Your task to perform on an android device: turn on location history Image 0: 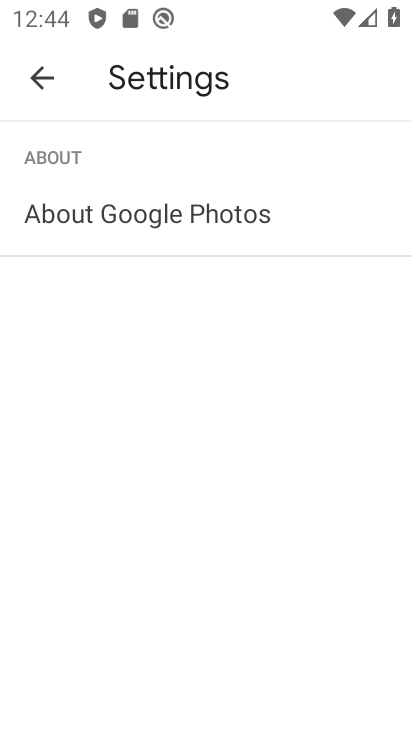
Step 0: press home button
Your task to perform on an android device: turn on location history Image 1: 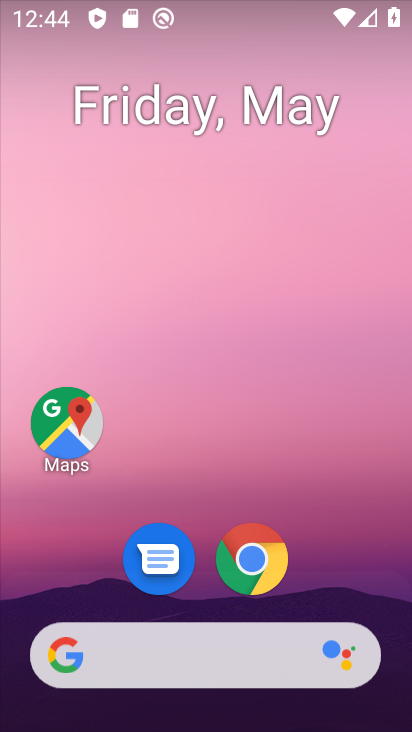
Step 1: drag from (367, 565) to (317, 167)
Your task to perform on an android device: turn on location history Image 2: 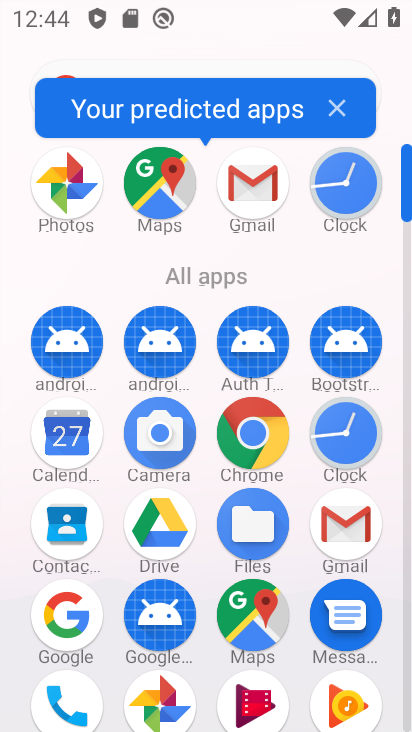
Step 2: drag from (285, 559) to (269, 240)
Your task to perform on an android device: turn on location history Image 3: 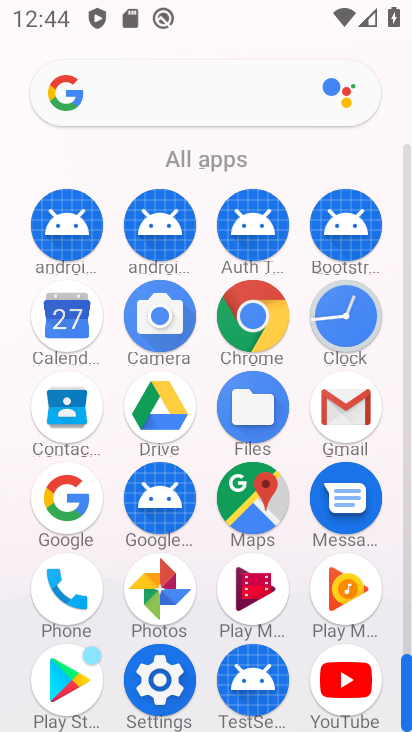
Step 3: click (172, 666)
Your task to perform on an android device: turn on location history Image 4: 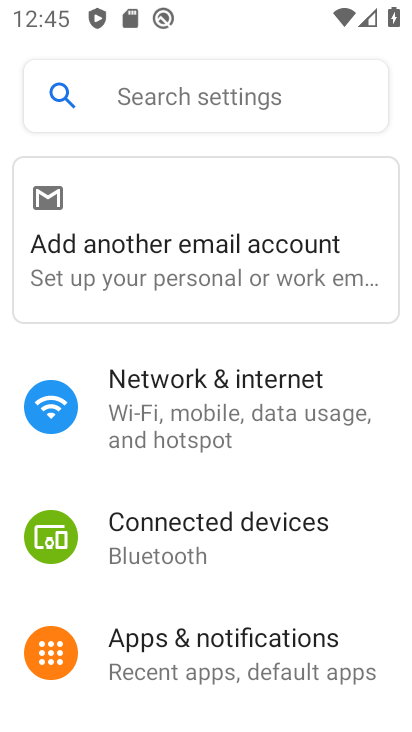
Step 4: drag from (277, 658) to (240, 274)
Your task to perform on an android device: turn on location history Image 5: 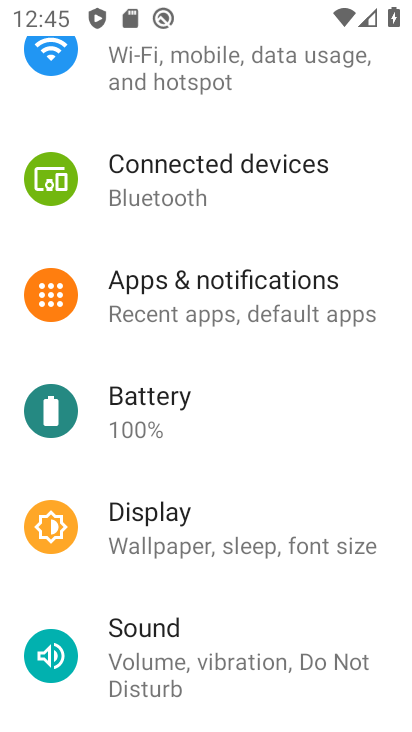
Step 5: drag from (259, 542) to (282, 216)
Your task to perform on an android device: turn on location history Image 6: 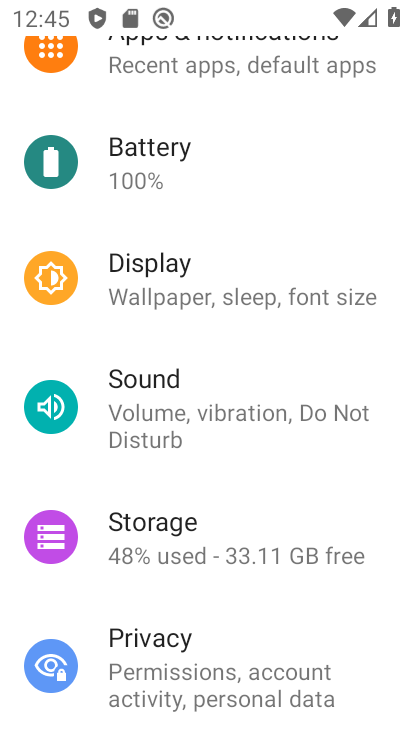
Step 6: drag from (231, 544) to (272, 198)
Your task to perform on an android device: turn on location history Image 7: 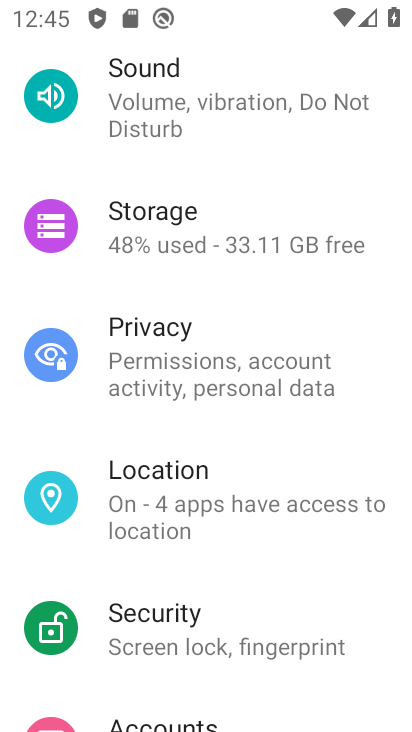
Step 7: click (208, 497)
Your task to perform on an android device: turn on location history Image 8: 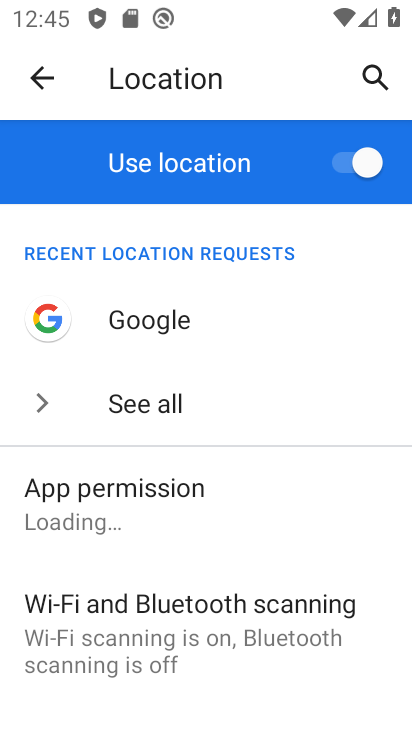
Step 8: drag from (331, 668) to (312, 384)
Your task to perform on an android device: turn on location history Image 9: 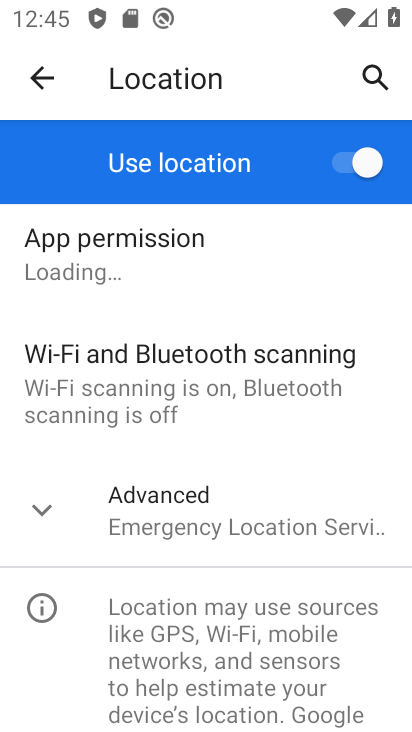
Step 9: click (226, 507)
Your task to perform on an android device: turn on location history Image 10: 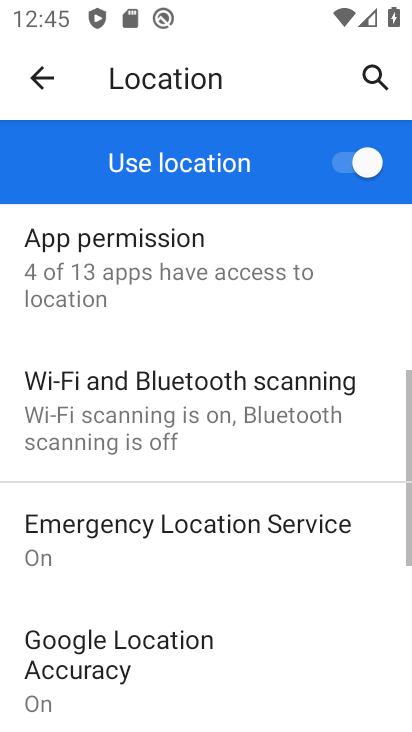
Step 10: drag from (249, 594) to (246, 309)
Your task to perform on an android device: turn on location history Image 11: 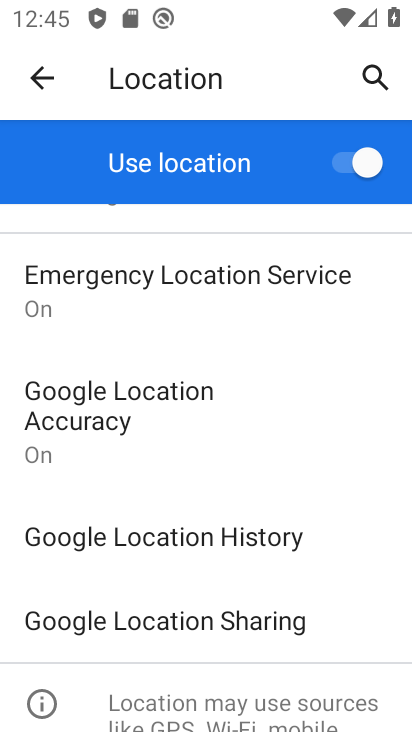
Step 11: click (267, 539)
Your task to perform on an android device: turn on location history Image 12: 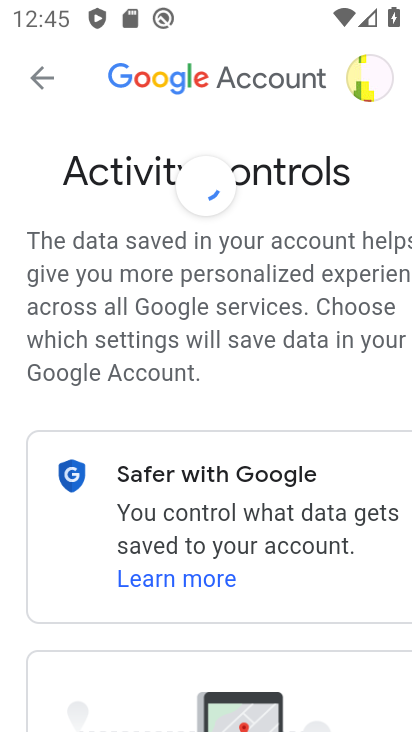
Step 12: task complete